Your task to perform on an android device: Open battery settings Image 0: 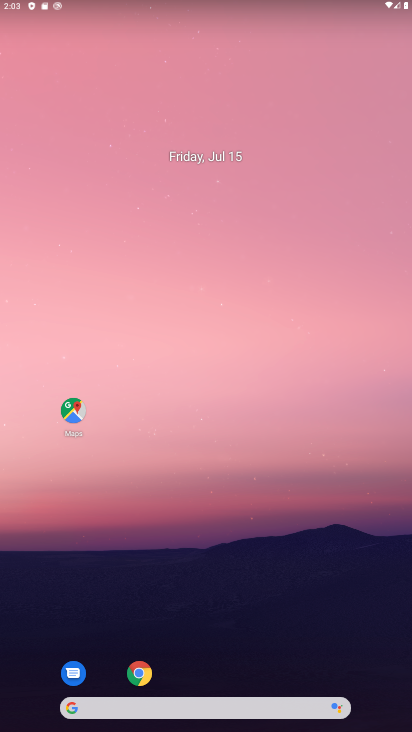
Step 0: drag from (258, 700) to (326, 151)
Your task to perform on an android device: Open battery settings Image 1: 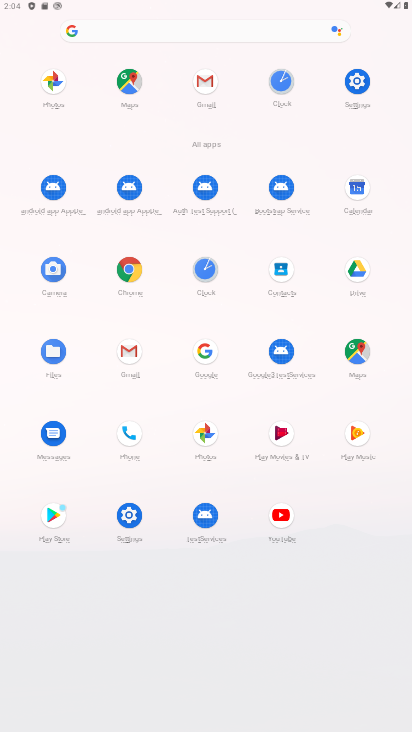
Step 1: click (133, 513)
Your task to perform on an android device: Open battery settings Image 2: 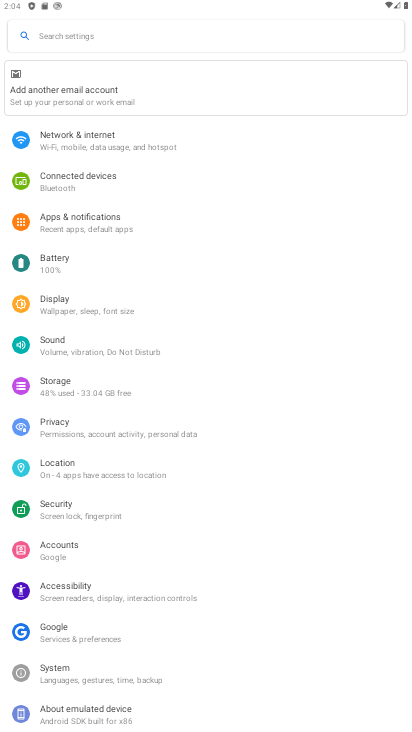
Step 2: click (64, 277)
Your task to perform on an android device: Open battery settings Image 3: 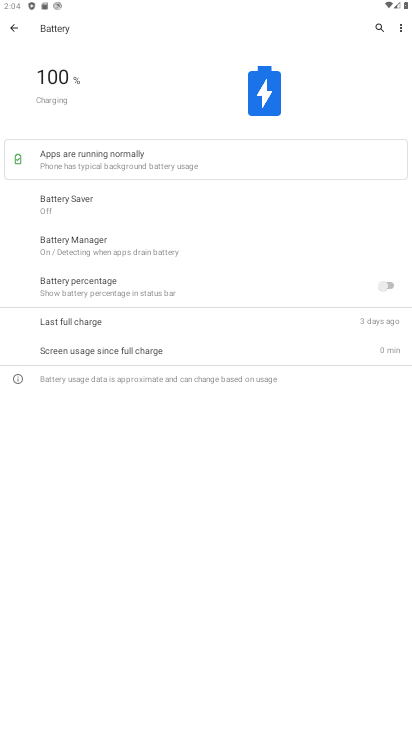
Step 3: task complete